Your task to perform on an android device: turn off picture-in-picture Image 0: 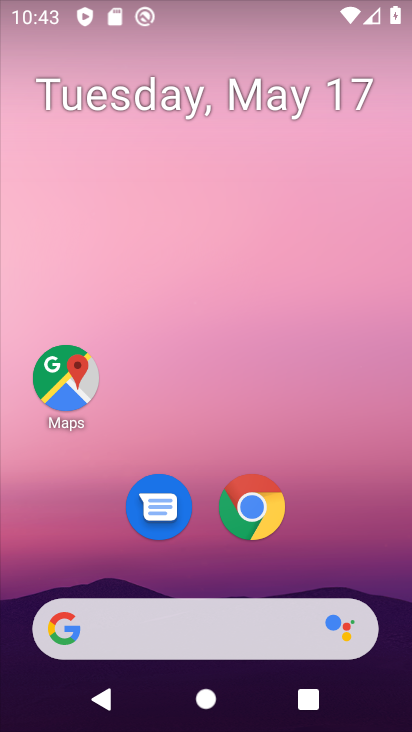
Step 0: drag from (356, 533) to (307, 217)
Your task to perform on an android device: turn off picture-in-picture Image 1: 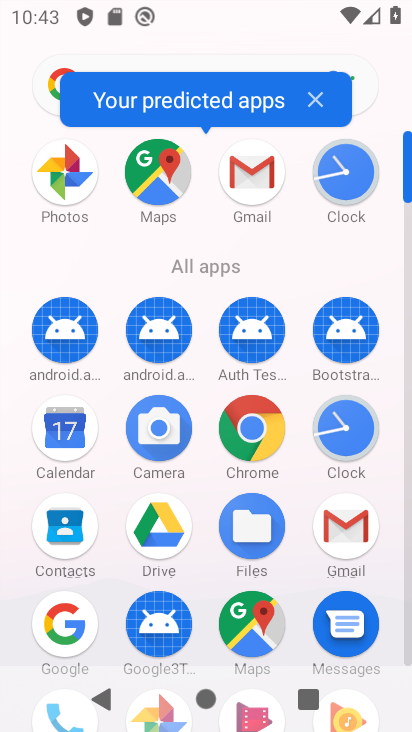
Step 1: drag from (229, 563) to (206, 305)
Your task to perform on an android device: turn off picture-in-picture Image 2: 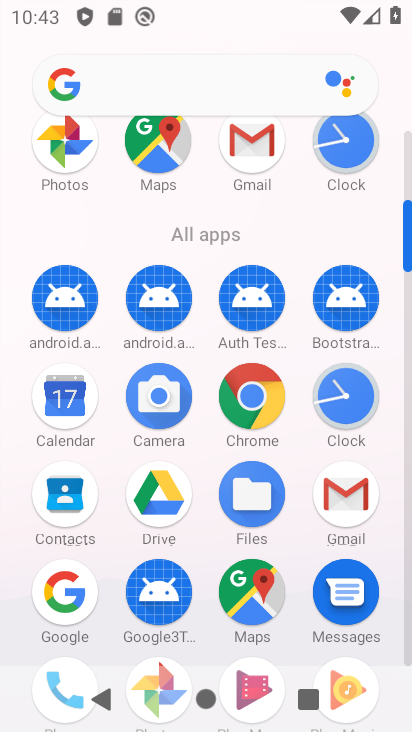
Step 2: drag from (186, 580) to (214, 248)
Your task to perform on an android device: turn off picture-in-picture Image 3: 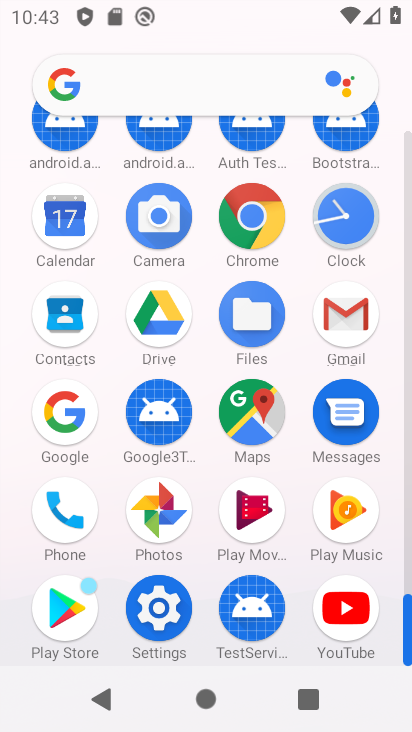
Step 3: click (145, 633)
Your task to perform on an android device: turn off picture-in-picture Image 4: 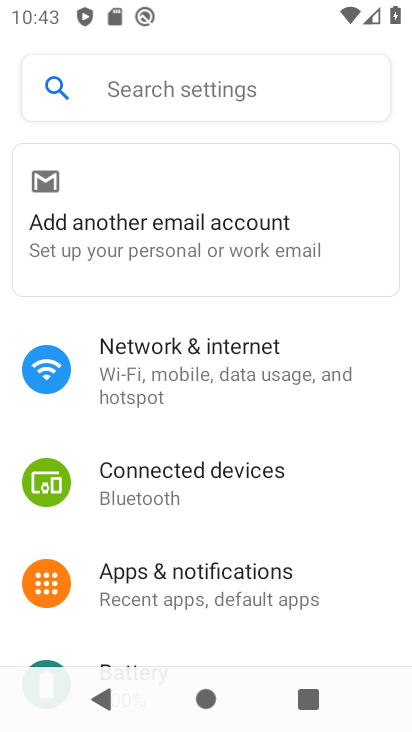
Step 4: drag from (342, 572) to (326, 206)
Your task to perform on an android device: turn off picture-in-picture Image 5: 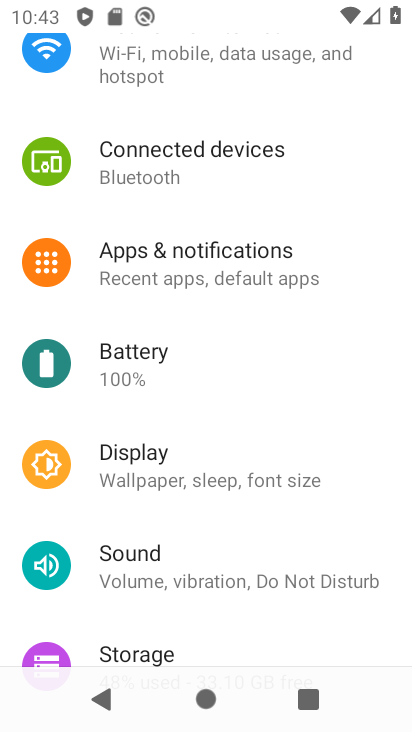
Step 5: drag from (328, 601) to (309, 250)
Your task to perform on an android device: turn off picture-in-picture Image 6: 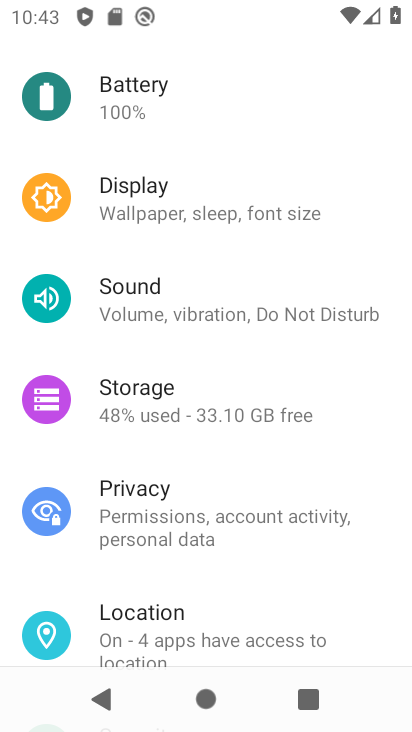
Step 6: drag from (261, 141) to (323, 589)
Your task to perform on an android device: turn off picture-in-picture Image 7: 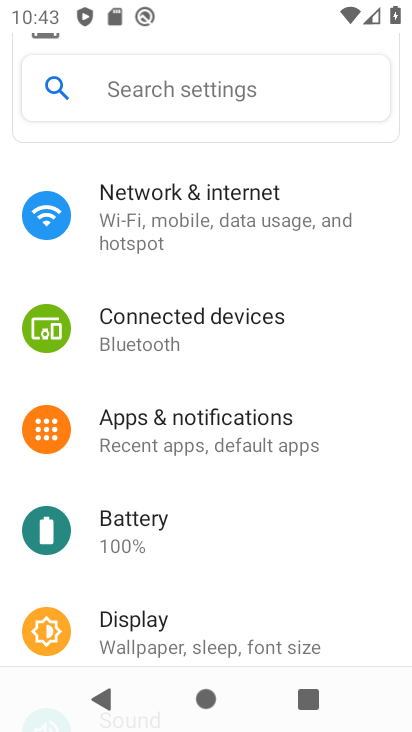
Step 7: click (239, 418)
Your task to perform on an android device: turn off picture-in-picture Image 8: 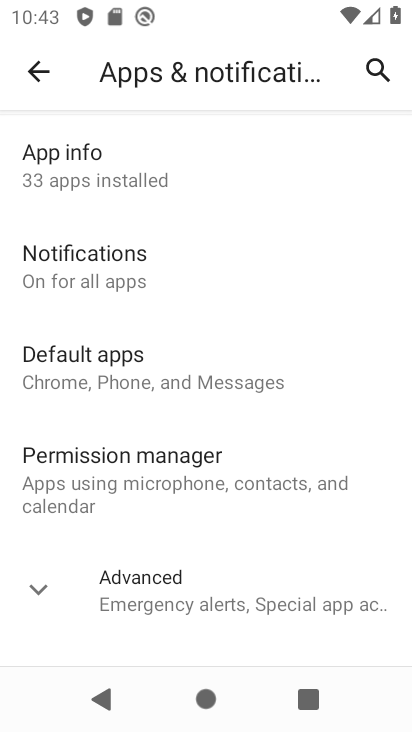
Step 8: drag from (314, 579) to (317, 188)
Your task to perform on an android device: turn off picture-in-picture Image 9: 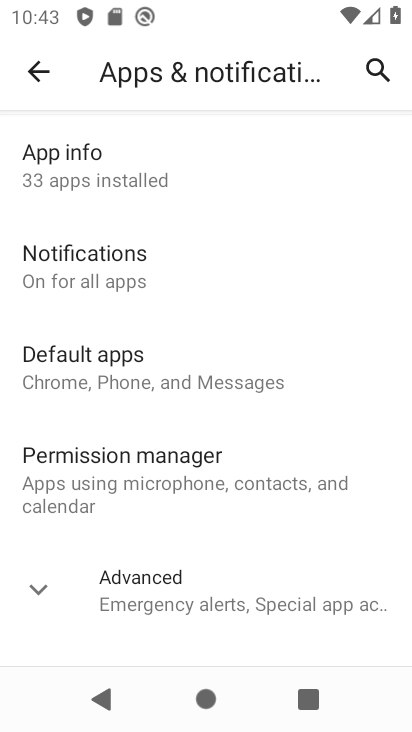
Step 9: drag from (313, 645) to (297, 237)
Your task to perform on an android device: turn off picture-in-picture Image 10: 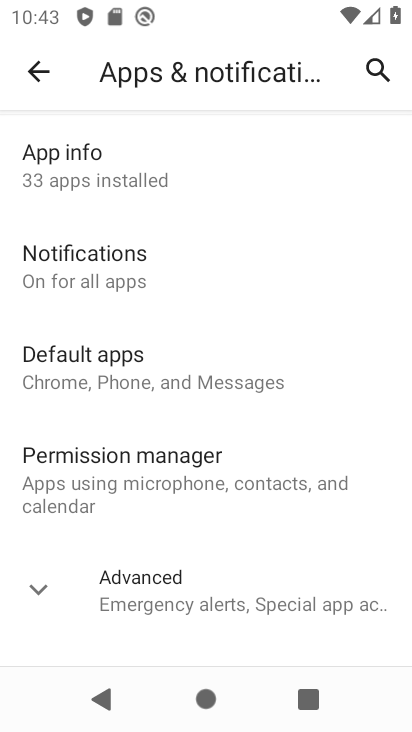
Step 10: click (243, 582)
Your task to perform on an android device: turn off picture-in-picture Image 11: 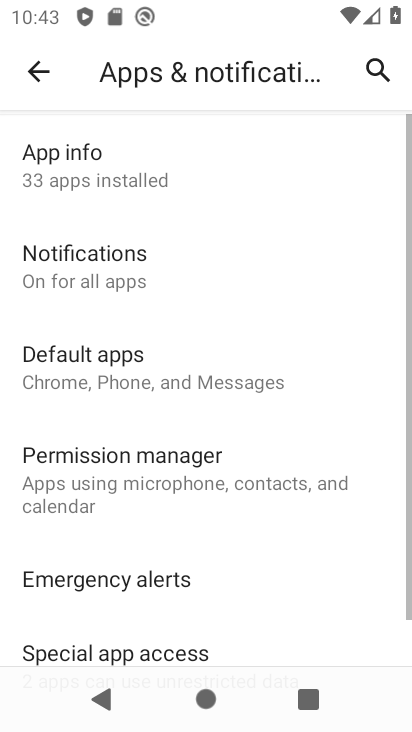
Step 11: drag from (283, 587) to (295, 69)
Your task to perform on an android device: turn off picture-in-picture Image 12: 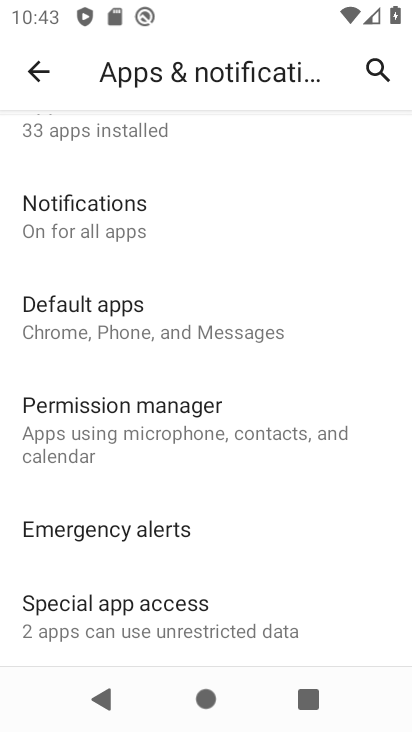
Step 12: click (222, 586)
Your task to perform on an android device: turn off picture-in-picture Image 13: 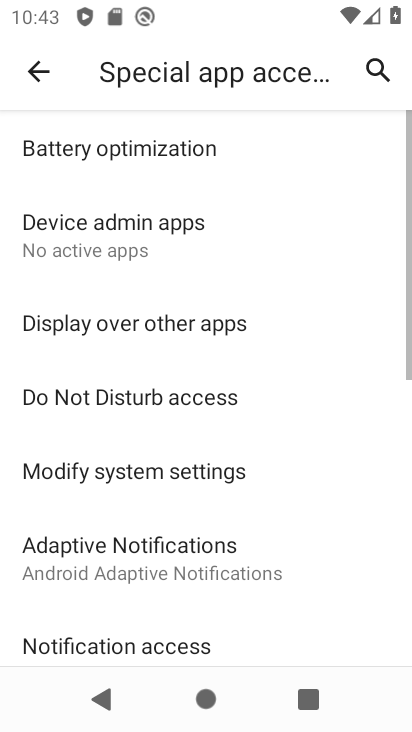
Step 13: drag from (323, 588) to (285, 204)
Your task to perform on an android device: turn off picture-in-picture Image 14: 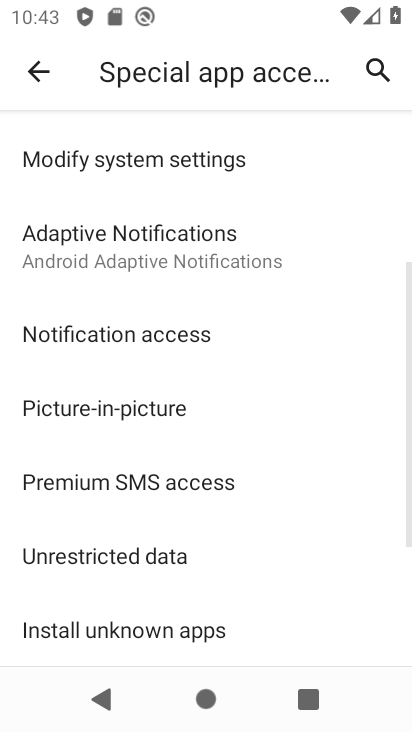
Step 14: click (173, 420)
Your task to perform on an android device: turn off picture-in-picture Image 15: 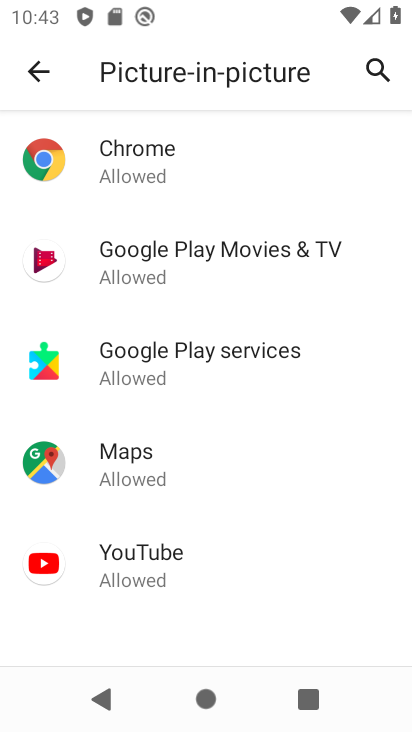
Step 15: click (210, 119)
Your task to perform on an android device: turn off picture-in-picture Image 16: 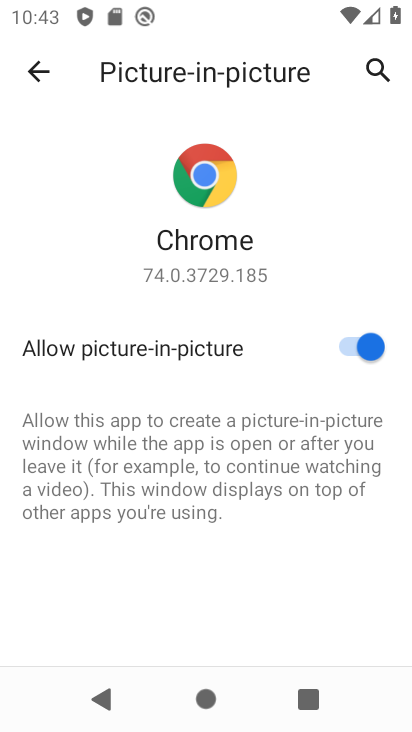
Step 16: click (352, 347)
Your task to perform on an android device: turn off picture-in-picture Image 17: 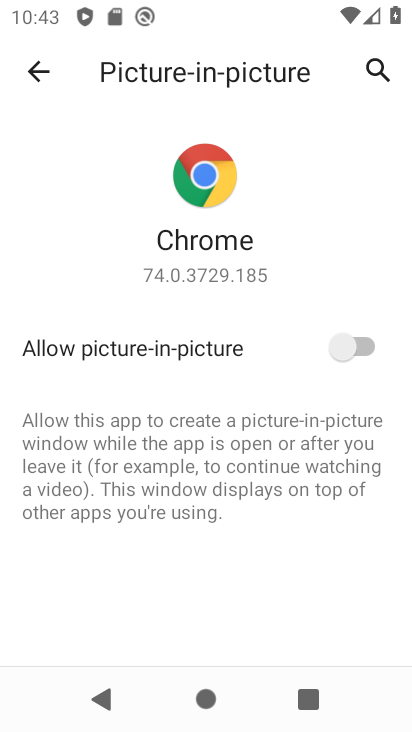
Step 17: task complete